Your task to perform on an android device: turn off data saver in the chrome app Image 0: 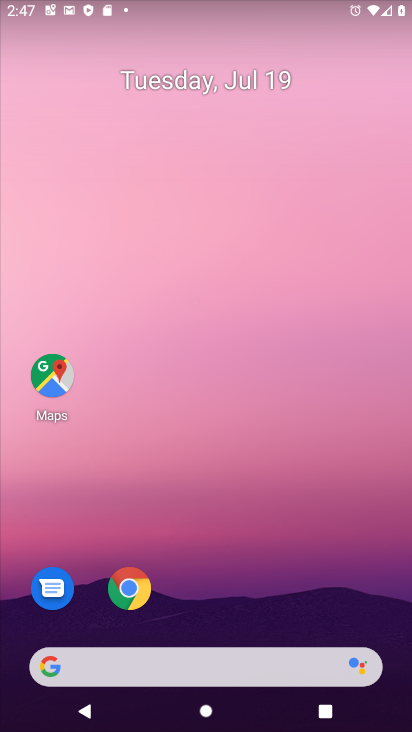
Step 0: drag from (345, 611) to (324, 0)
Your task to perform on an android device: turn off data saver in the chrome app Image 1: 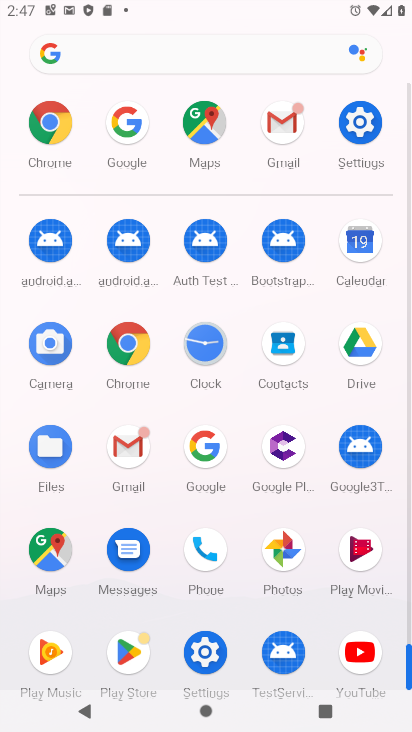
Step 1: click (47, 120)
Your task to perform on an android device: turn off data saver in the chrome app Image 2: 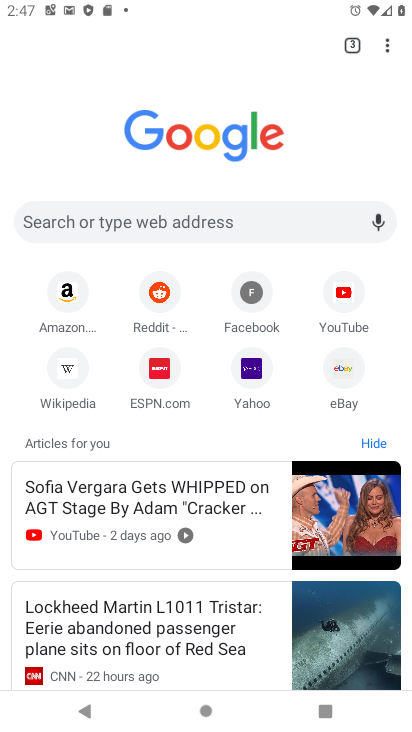
Step 2: click (387, 41)
Your task to perform on an android device: turn off data saver in the chrome app Image 3: 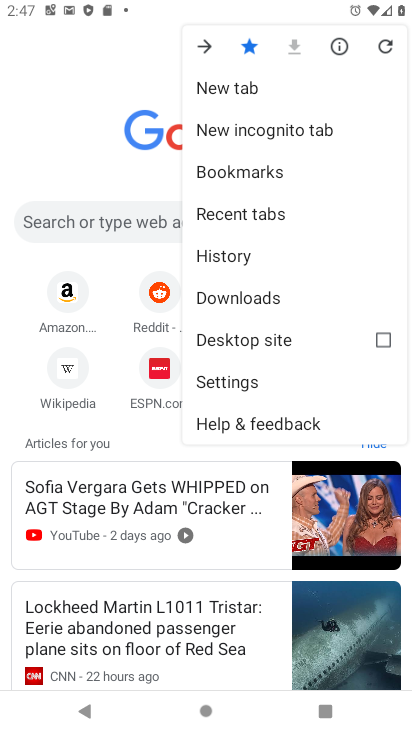
Step 3: click (218, 381)
Your task to perform on an android device: turn off data saver in the chrome app Image 4: 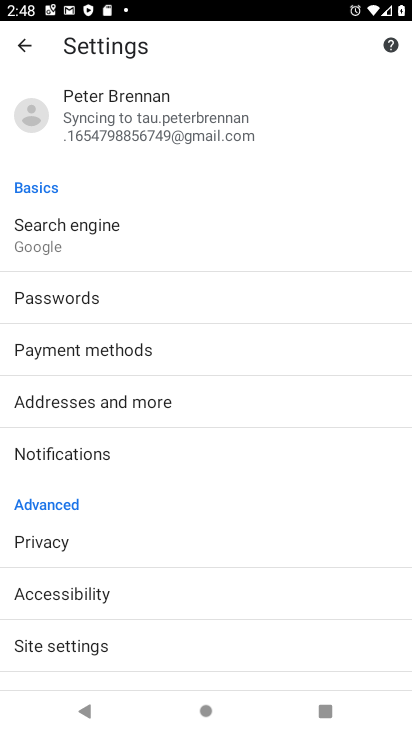
Step 4: drag from (83, 642) to (79, 216)
Your task to perform on an android device: turn off data saver in the chrome app Image 5: 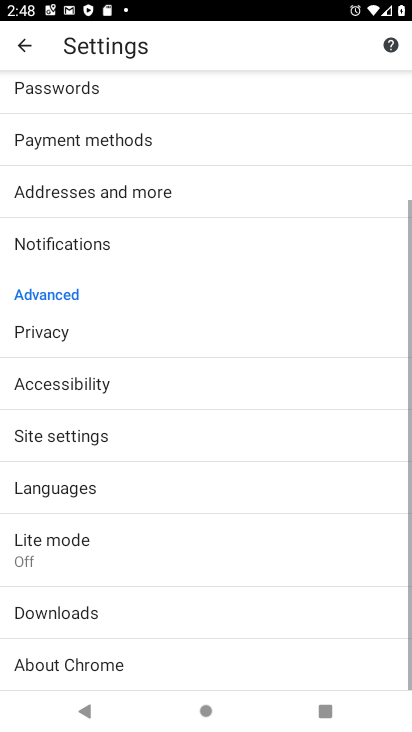
Step 5: click (48, 540)
Your task to perform on an android device: turn off data saver in the chrome app Image 6: 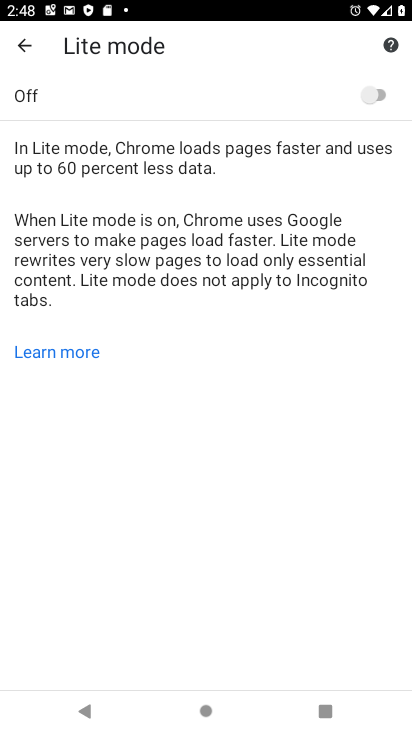
Step 6: task complete